Your task to perform on an android device: turn on location history Image 0: 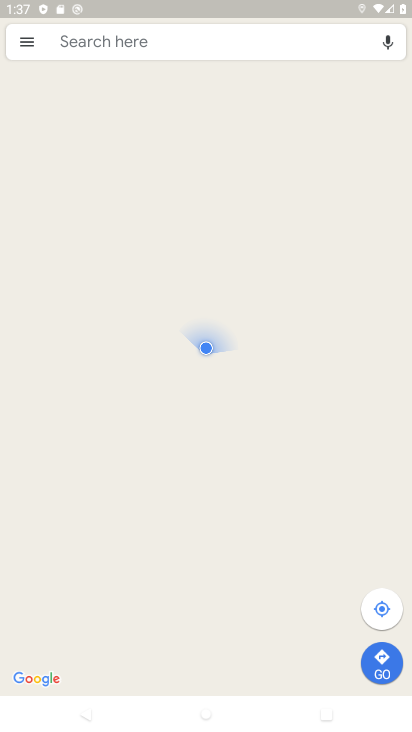
Step 0: click (23, 37)
Your task to perform on an android device: turn on location history Image 1: 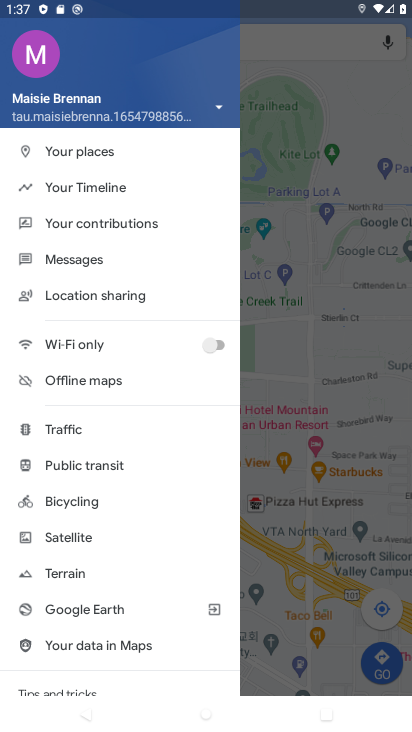
Step 1: click (78, 194)
Your task to perform on an android device: turn on location history Image 2: 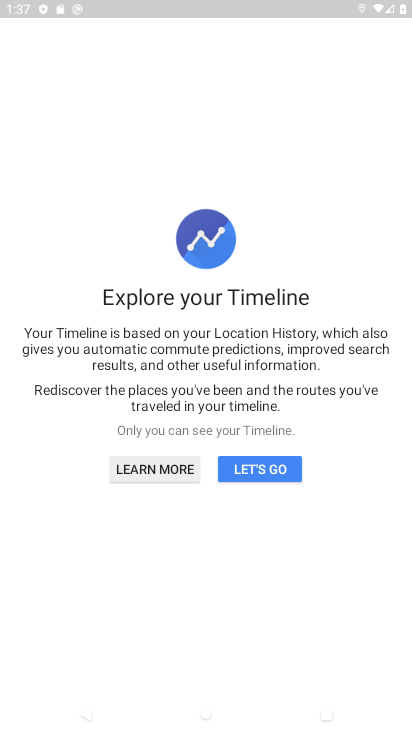
Step 2: click (259, 463)
Your task to perform on an android device: turn on location history Image 3: 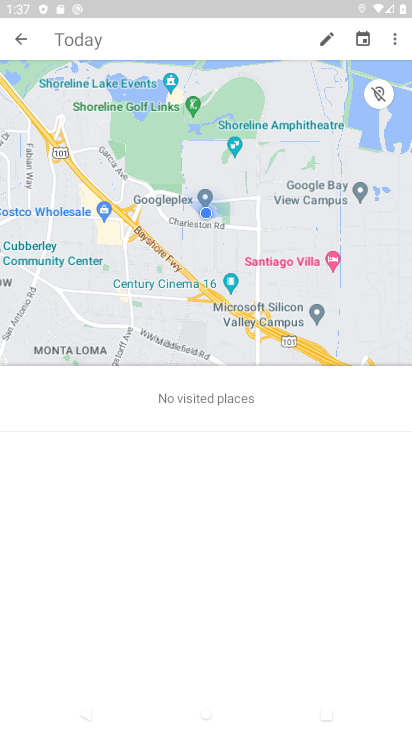
Step 3: click (395, 39)
Your task to perform on an android device: turn on location history Image 4: 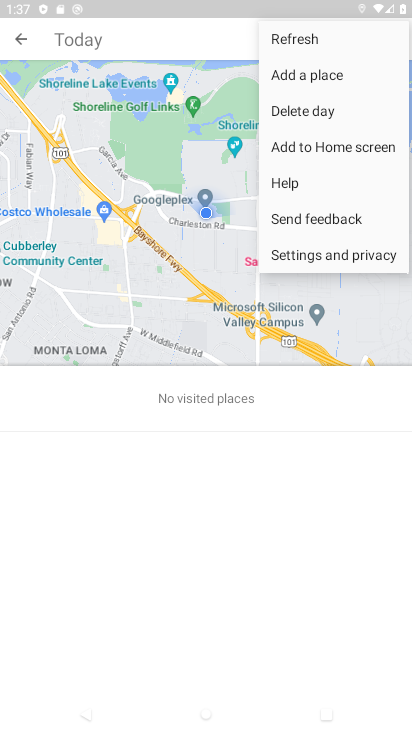
Step 4: click (312, 264)
Your task to perform on an android device: turn on location history Image 5: 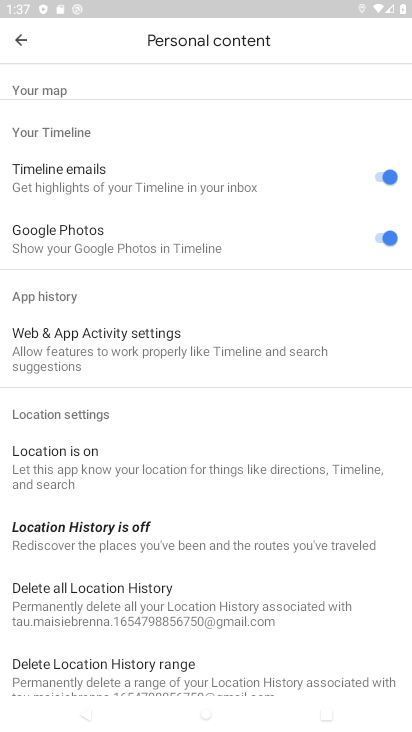
Step 5: click (232, 548)
Your task to perform on an android device: turn on location history Image 6: 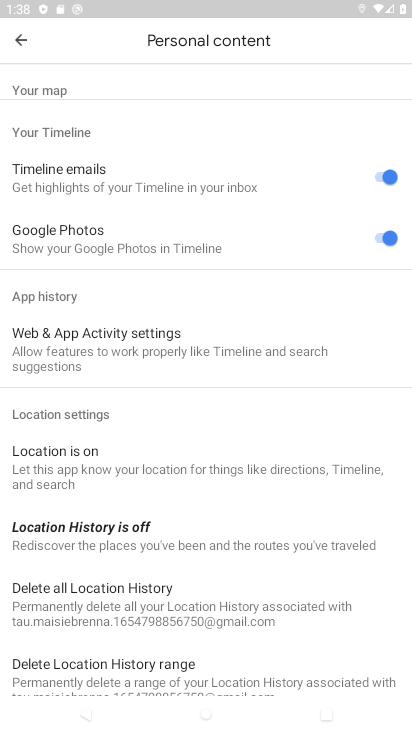
Step 6: click (114, 535)
Your task to perform on an android device: turn on location history Image 7: 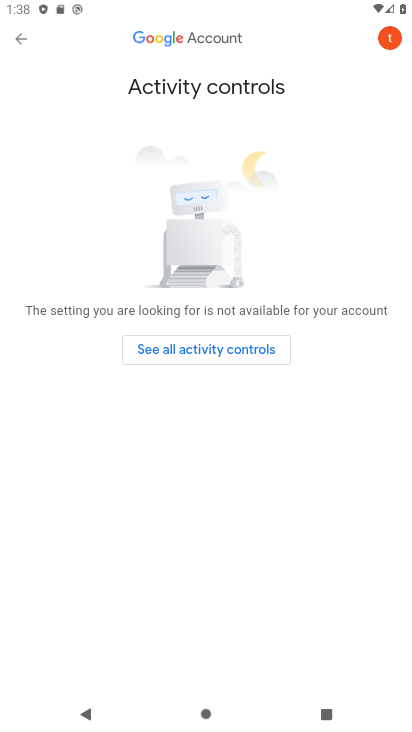
Step 7: click (250, 348)
Your task to perform on an android device: turn on location history Image 8: 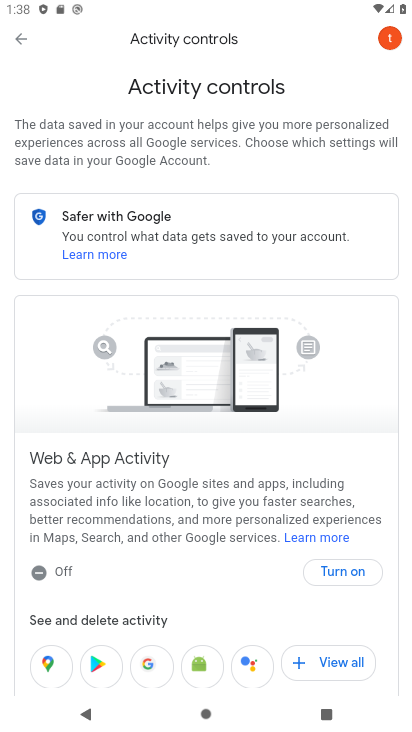
Step 8: task complete